Your task to perform on an android device: see tabs open on other devices in the chrome app Image 0: 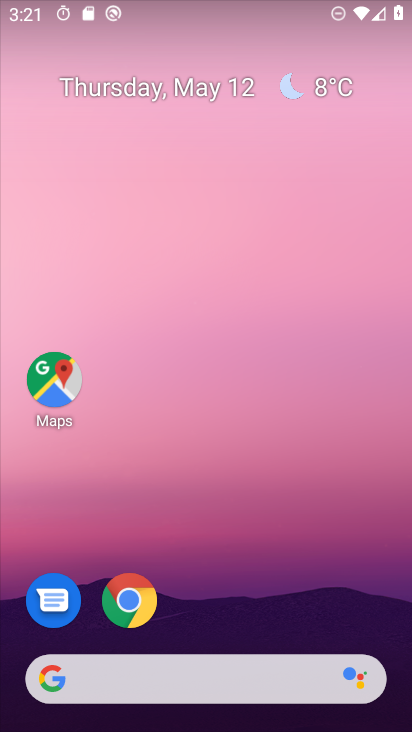
Step 0: click (129, 594)
Your task to perform on an android device: see tabs open on other devices in the chrome app Image 1: 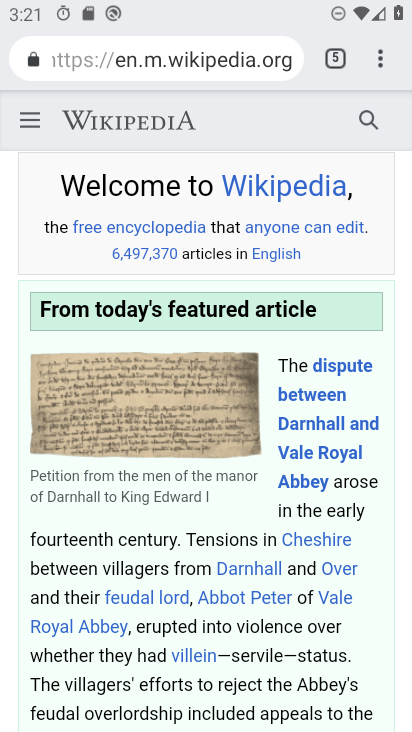
Step 1: click (379, 63)
Your task to perform on an android device: see tabs open on other devices in the chrome app Image 2: 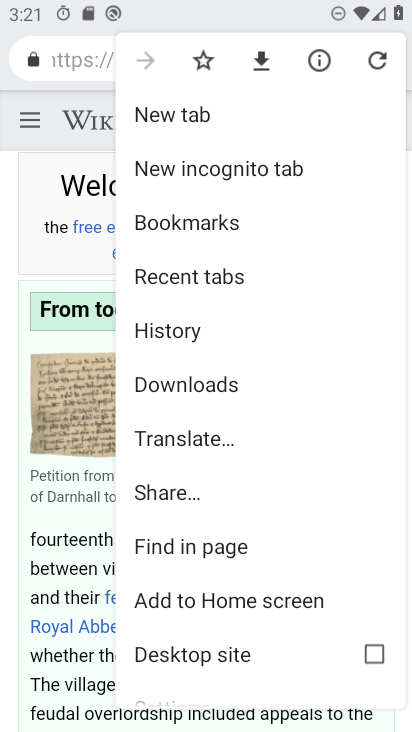
Step 2: click (213, 273)
Your task to perform on an android device: see tabs open on other devices in the chrome app Image 3: 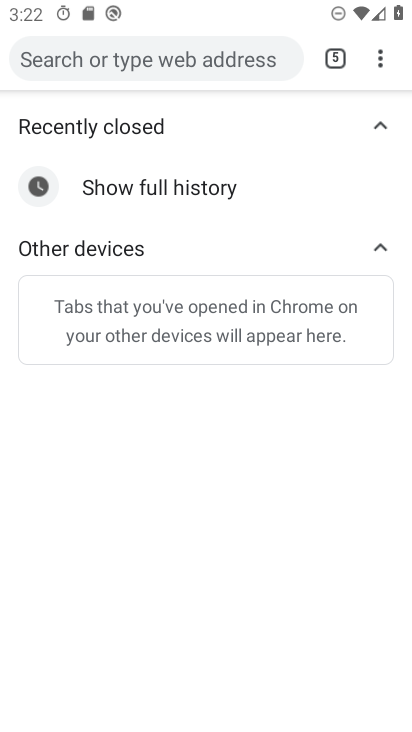
Step 3: task complete